Your task to perform on an android device: uninstall "LinkedIn" Image 0: 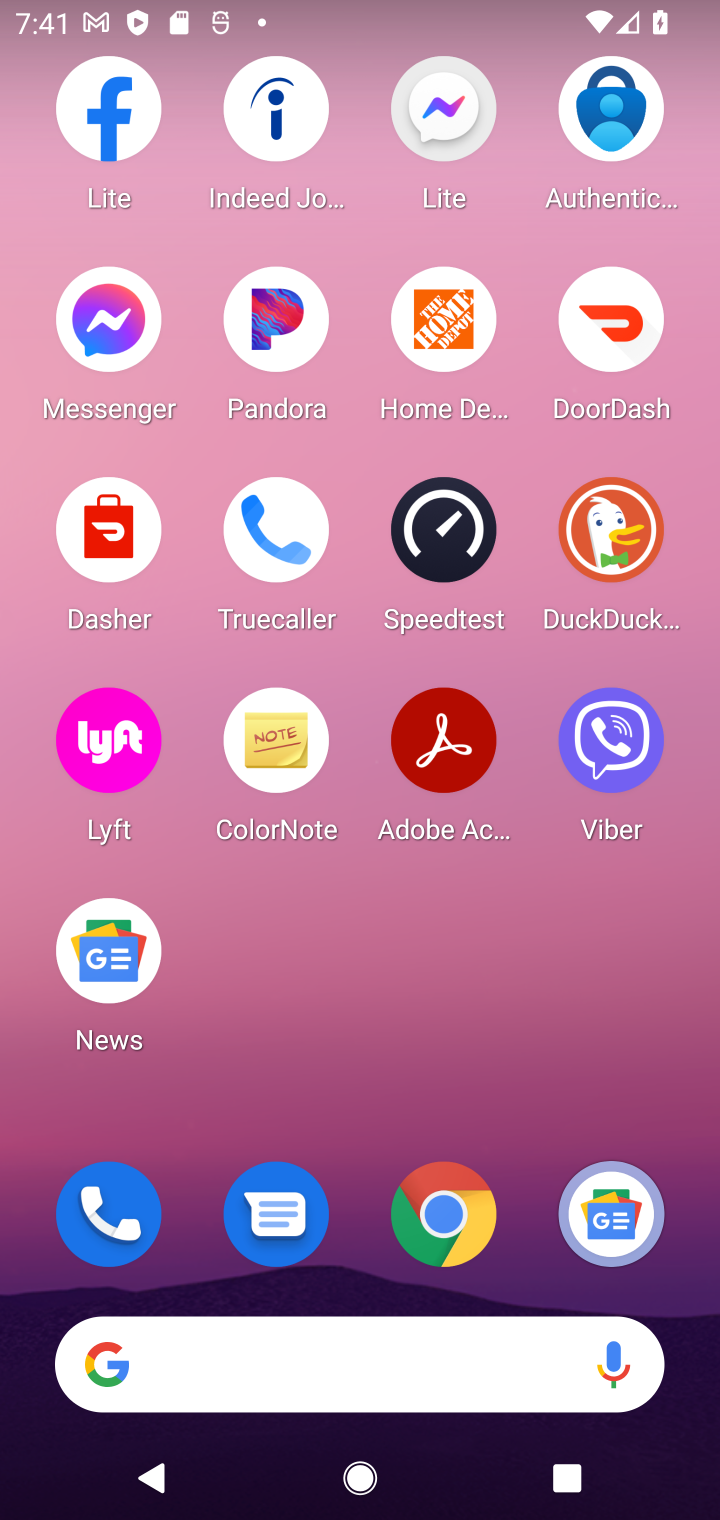
Step 0: drag from (365, 1102) to (367, 11)
Your task to perform on an android device: uninstall "LinkedIn" Image 1: 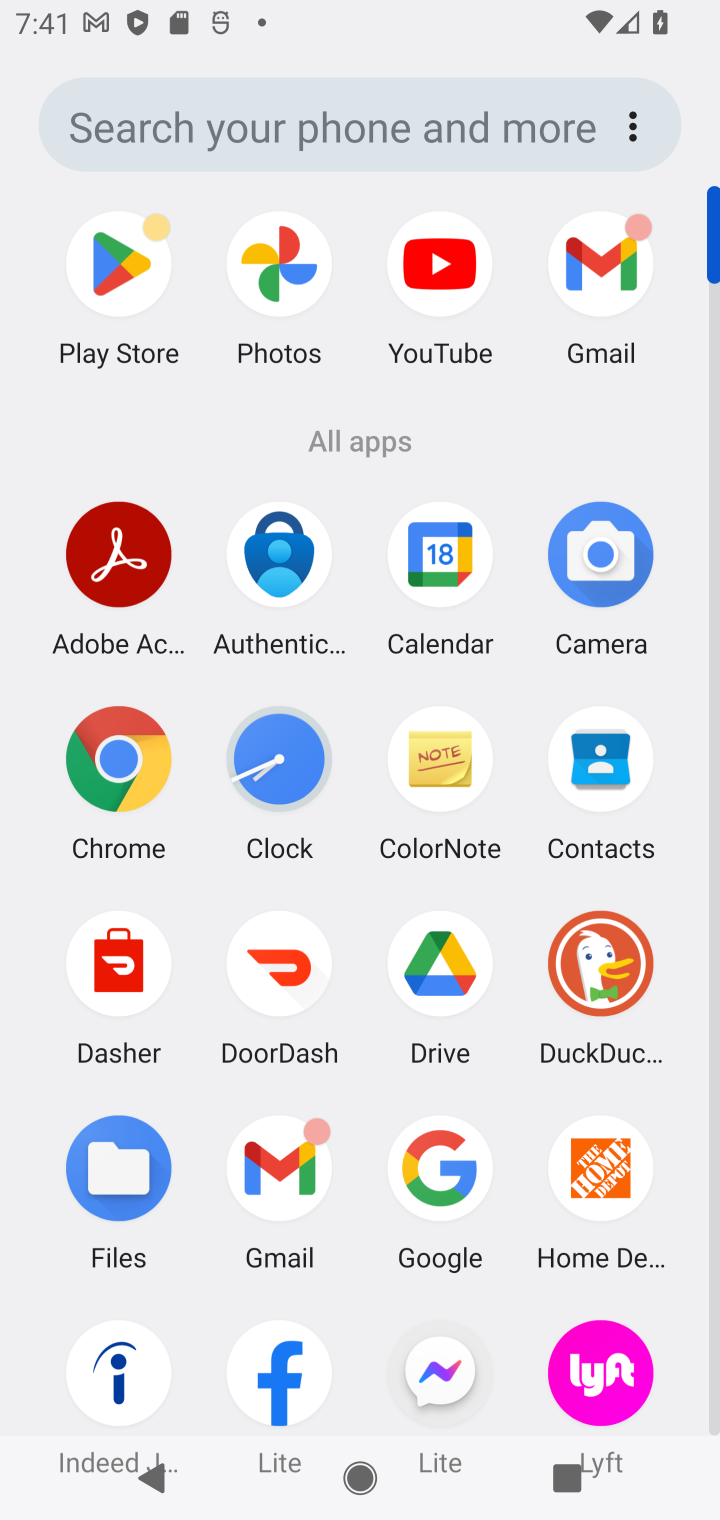
Step 1: click (124, 268)
Your task to perform on an android device: uninstall "LinkedIn" Image 2: 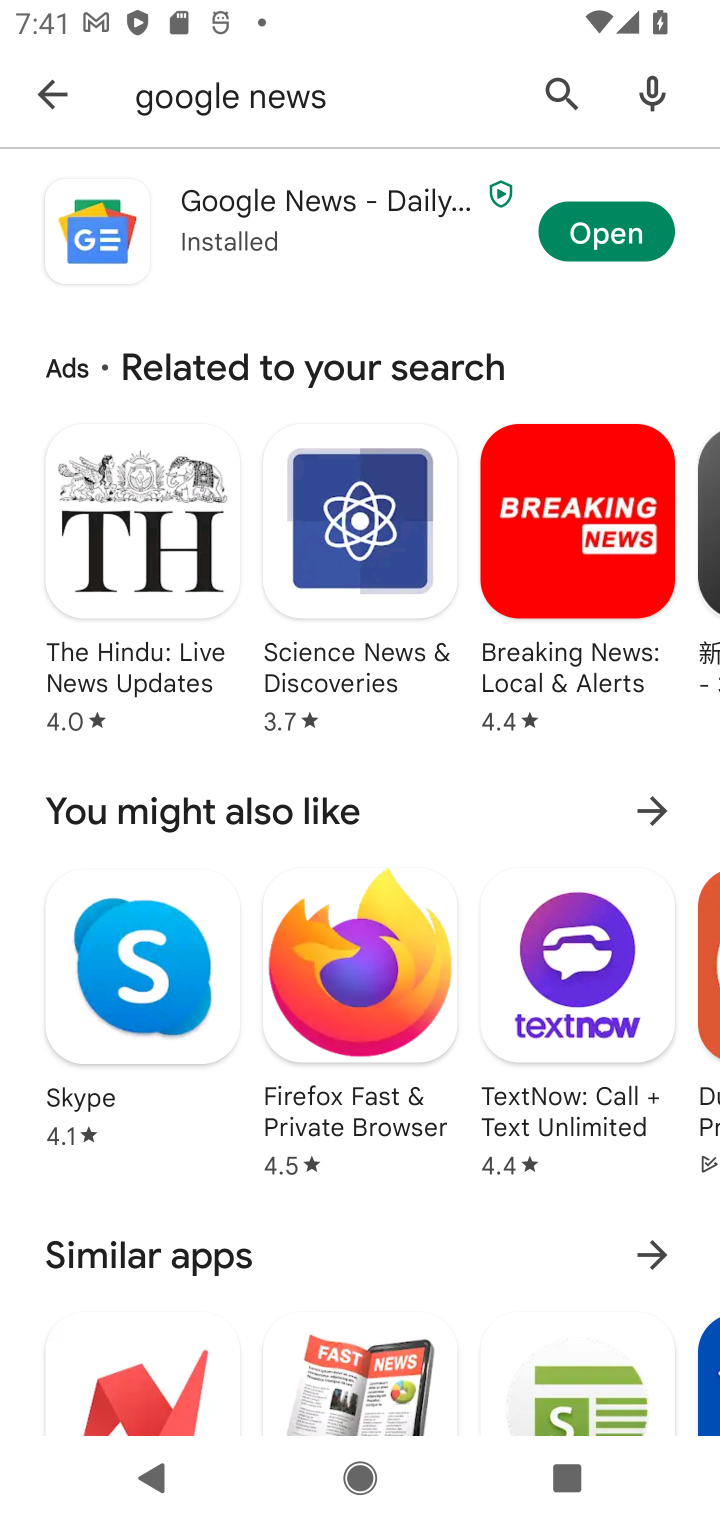
Step 2: click (556, 94)
Your task to perform on an android device: uninstall "LinkedIn" Image 3: 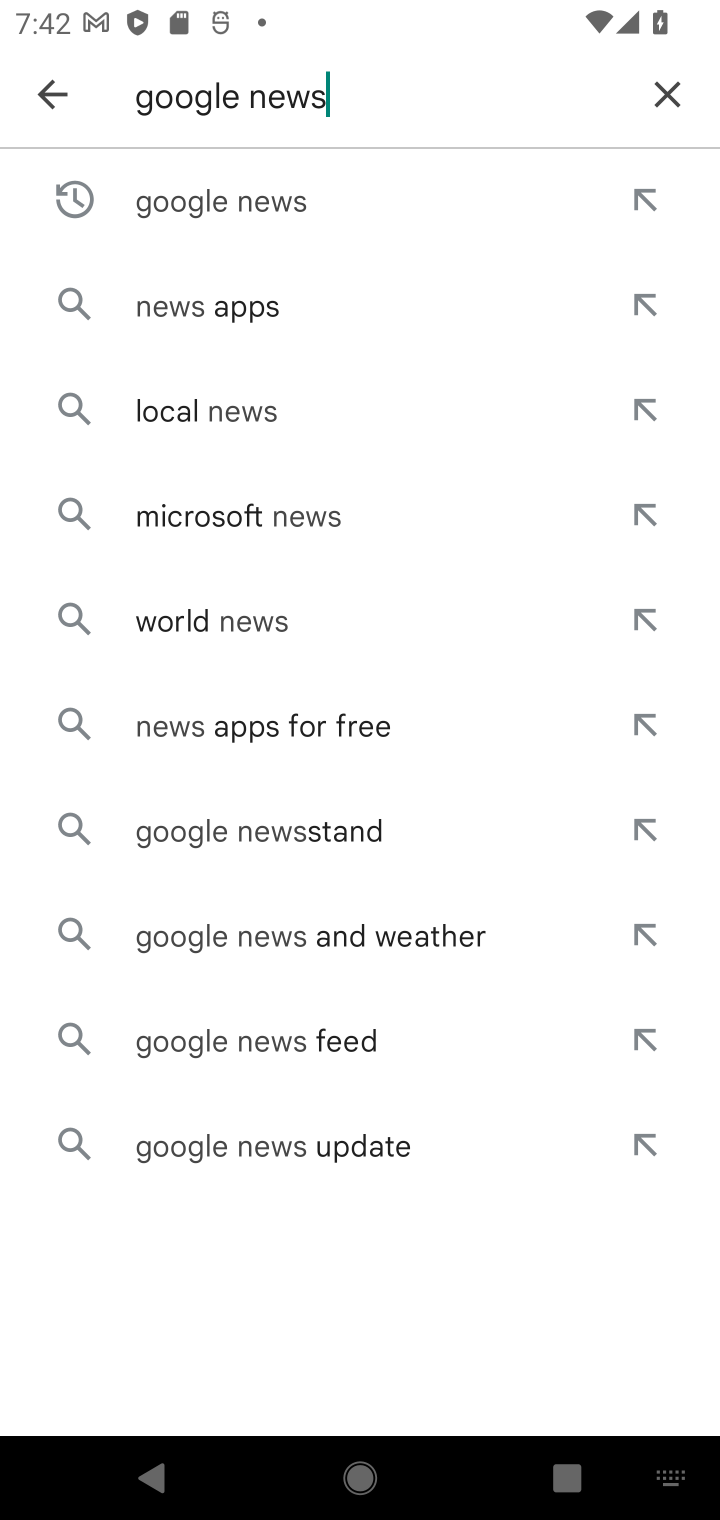
Step 3: click (664, 73)
Your task to perform on an android device: uninstall "LinkedIn" Image 4: 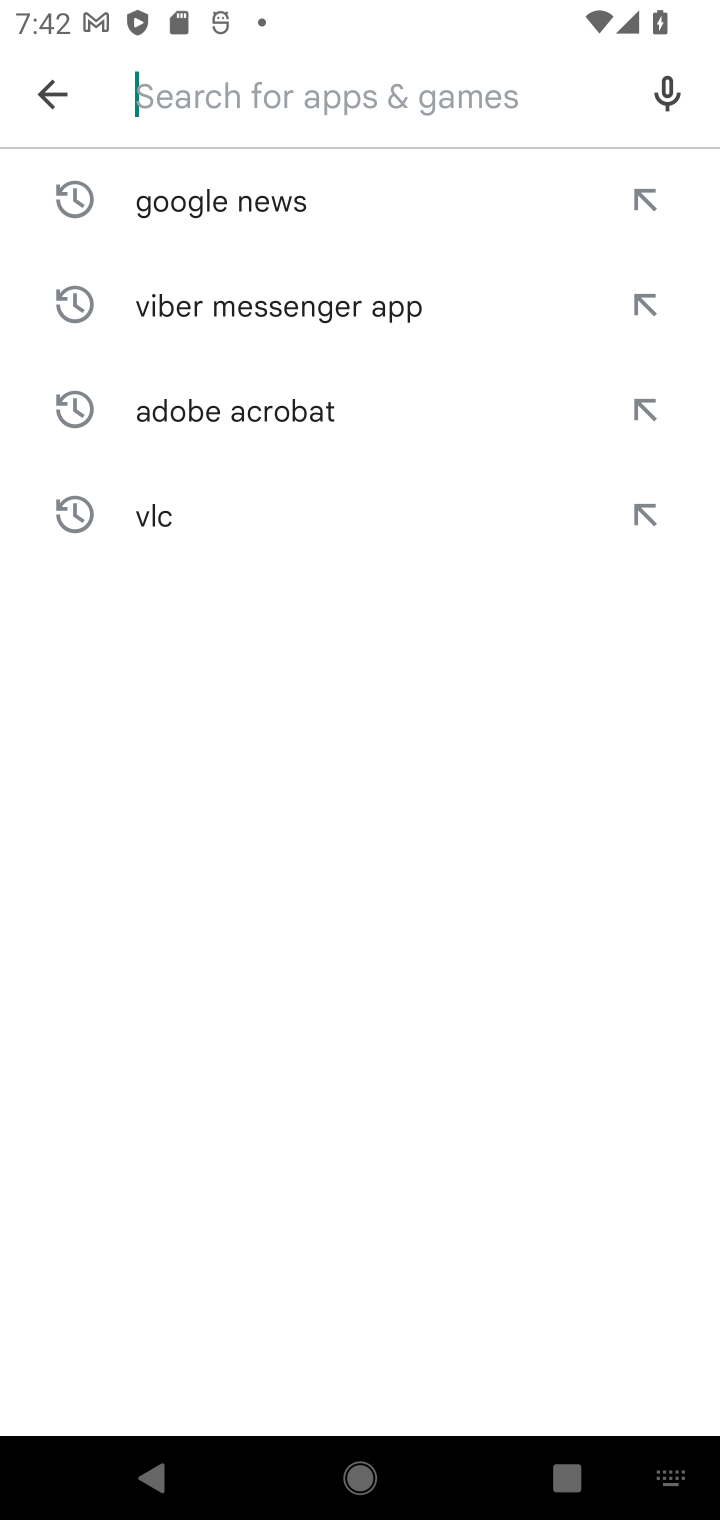
Step 4: click (344, 114)
Your task to perform on an android device: uninstall "LinkedIn" Image 5: 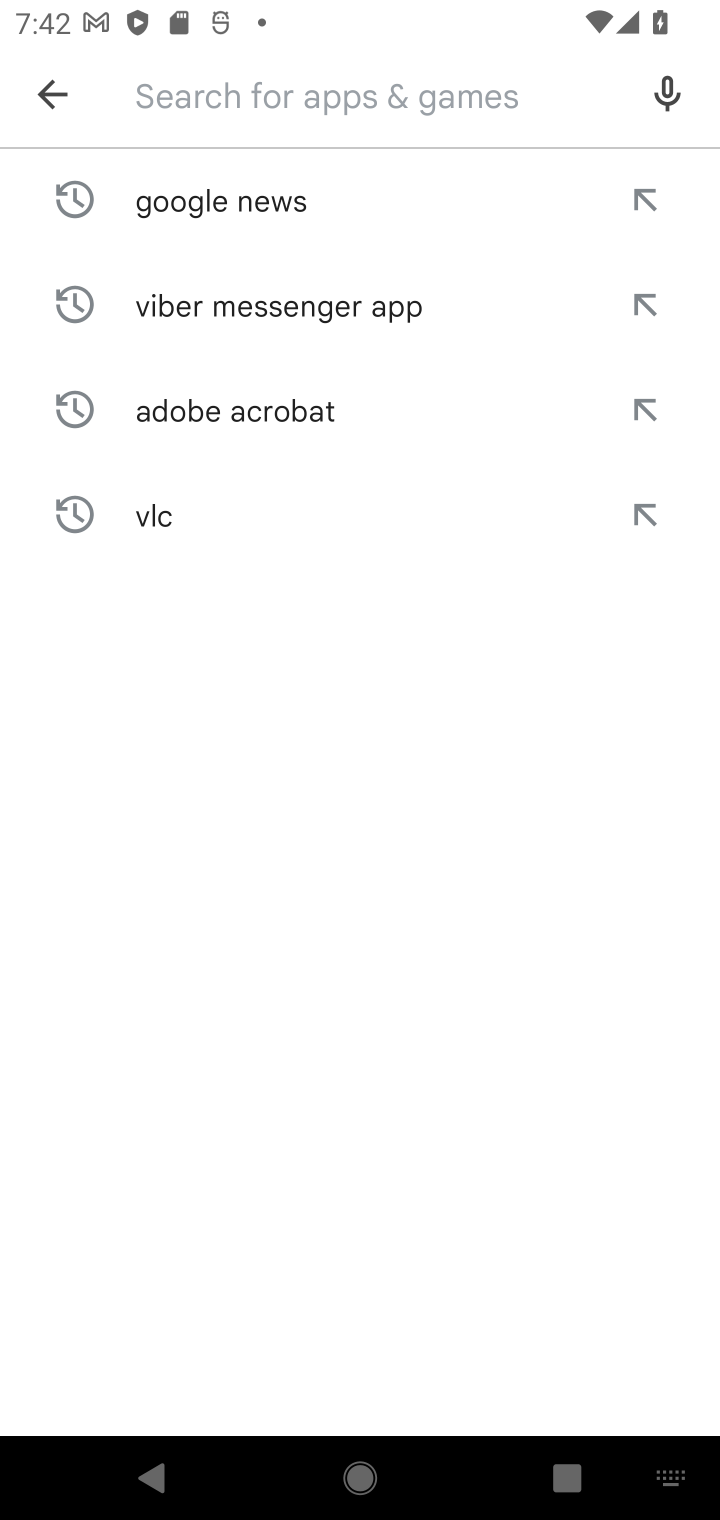
Step 5: type "linkedln"
Your task to perform on an android device: uninstall "LinkedIn" Image 6: 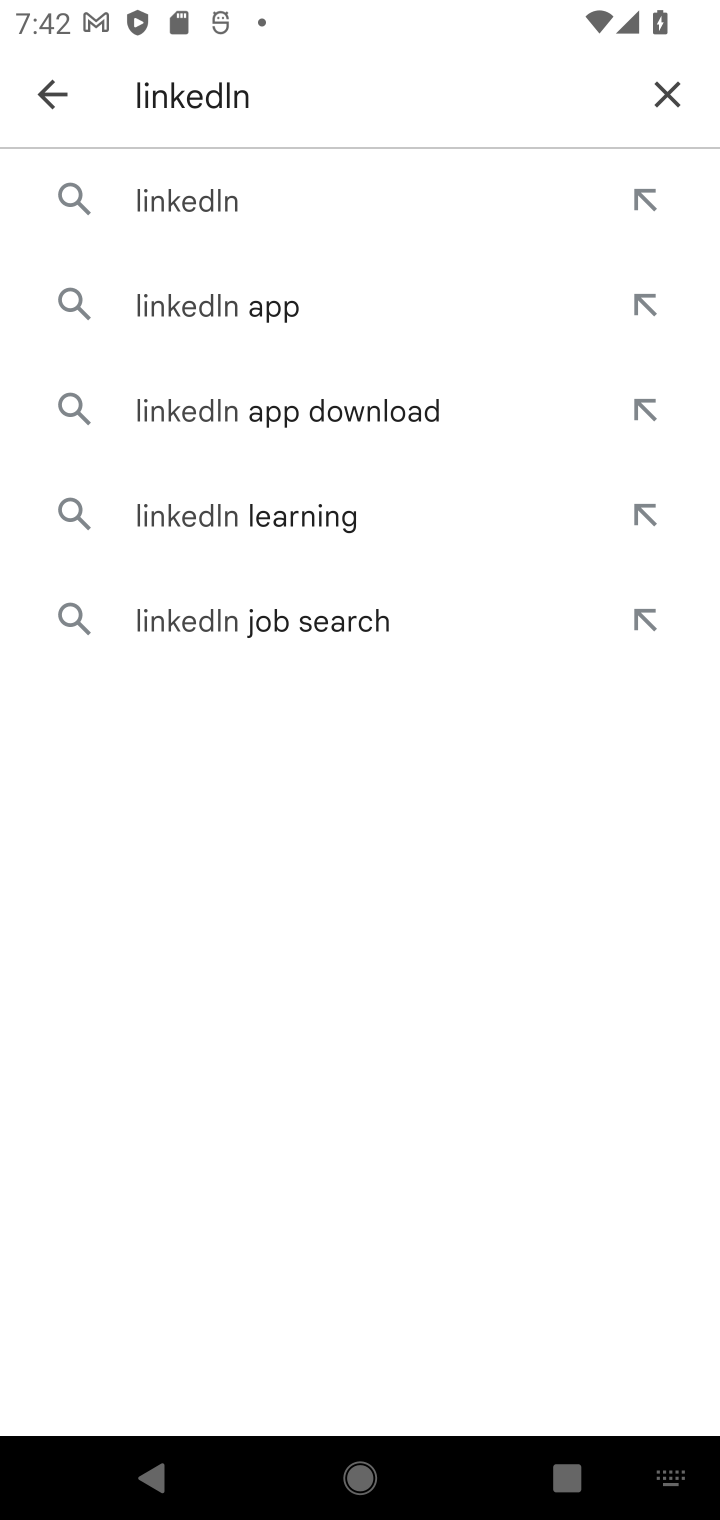
Step 6: click (285, 181)
Your task to perform on an android device: uninstall "LinkedIn" Image 7: 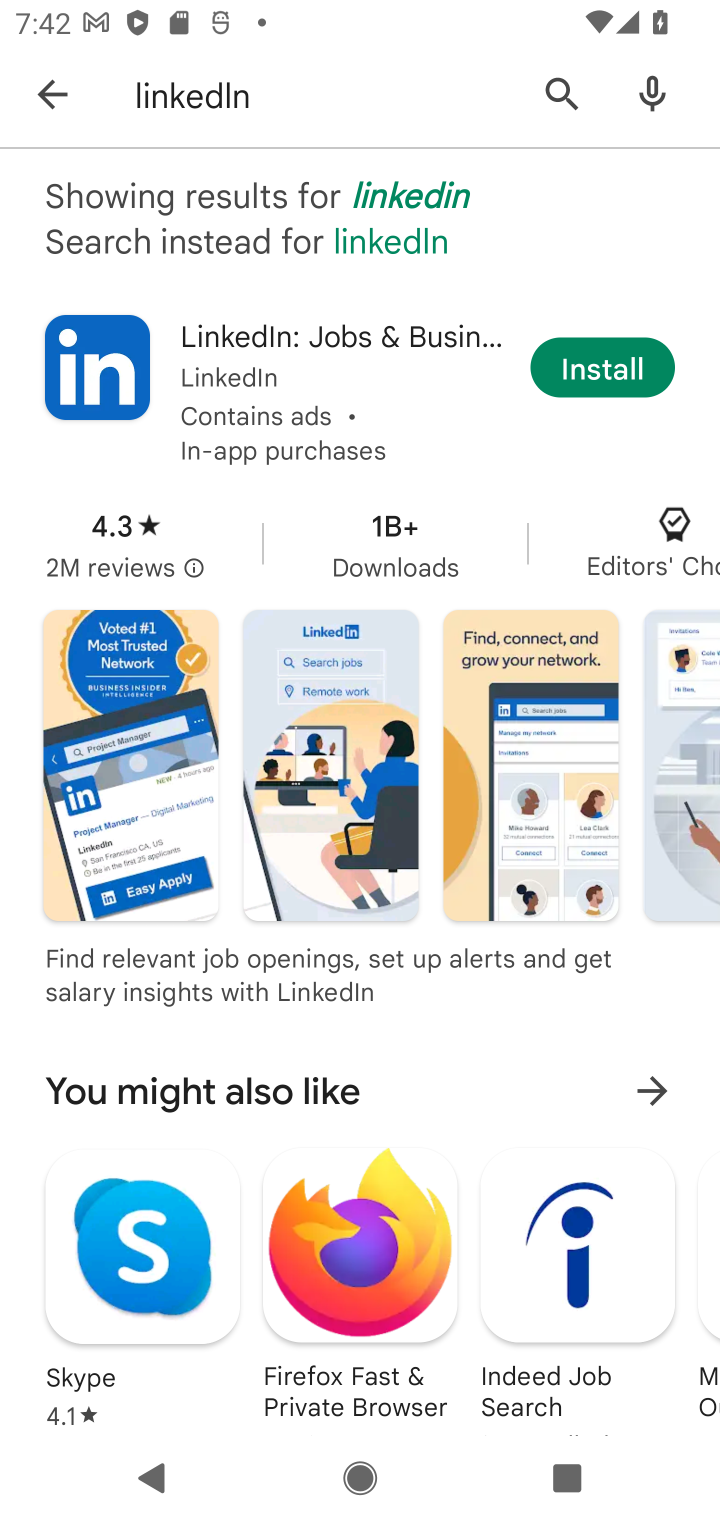
Step 7: task complete